Your task to perform on an android device: open wifi settings Image 0: 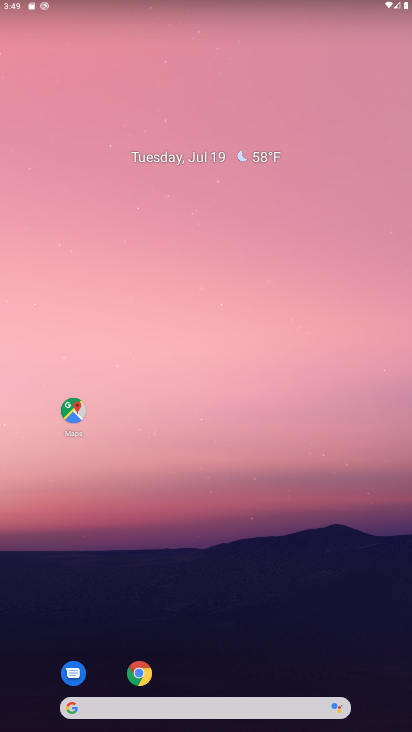
Step 0: drag from (292, 701) to (256, 0)
Your task to perform on an android device: open wifi settings Image 1: 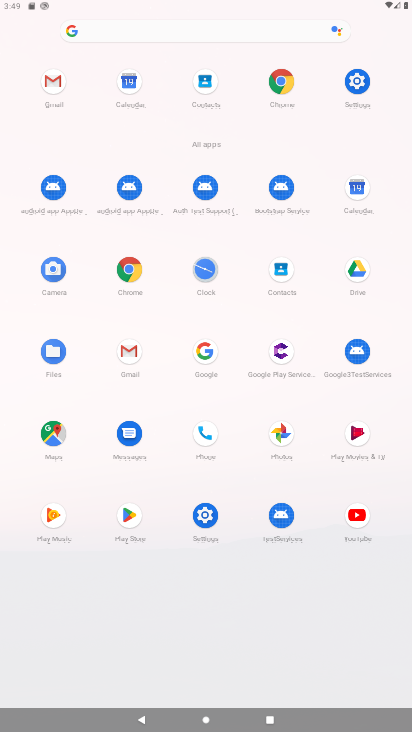
Step 1: click (354, 85)
Your task to perform on an android device: open wifi settings Image 2: 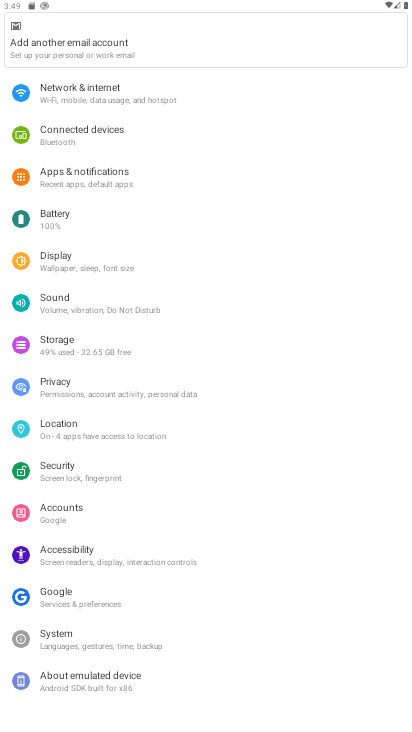
Step 2: click (129, 94)
Your task to perform on an android device: open wifi settings Image 3: 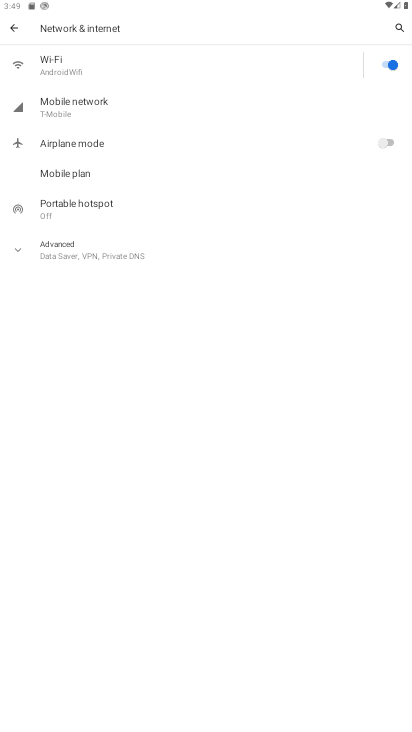
Step 3: click (98, 70)
Your task to perform on an android device: open wifi settings Image 4: 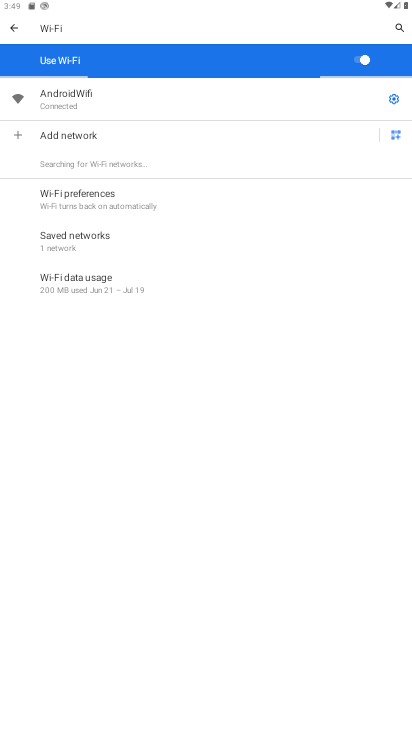
Step 4: task complete